Your task to perform on an android device: Open the calendar and show me this week's events? Image 0: 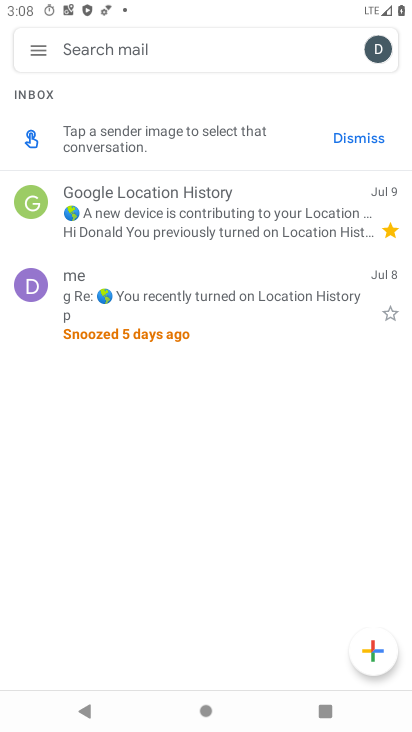
Step 0: press home button
Your task to perform on an android device: Open the calendar and show me this week's events? Image 1: 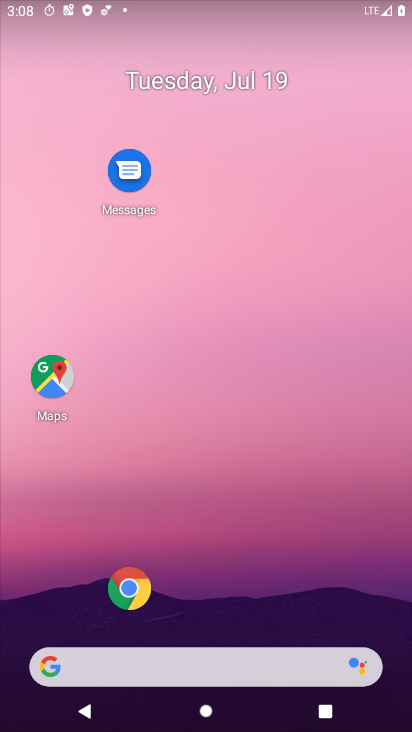
Step 1: drag from (28, 682) to (131, 282)
Your task to perform on an android device: Open the calendar and show me this week's events? Image 2: 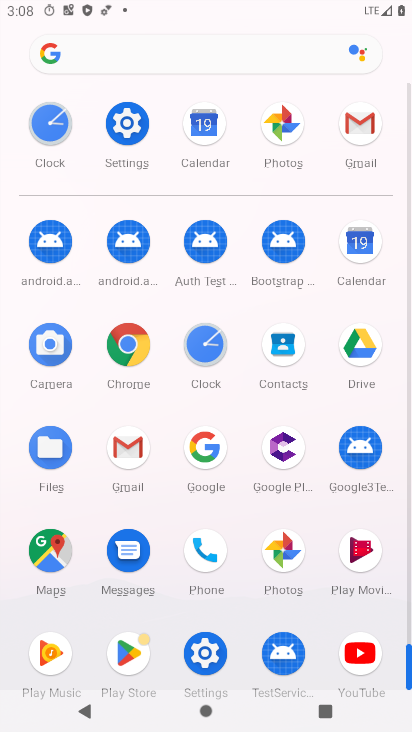
Step 2: click (364, 238)
Your task to perform on an android device: Open the calendar and show me this week's events? Image 3: 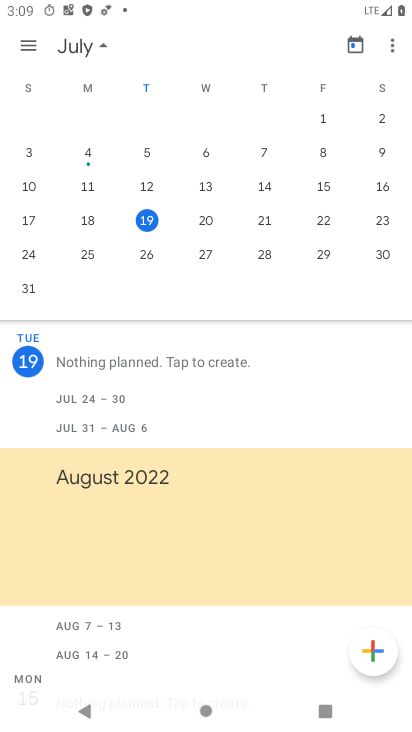
Step 3: task complete